Your task to perform on an android device: Open settings Image 0: 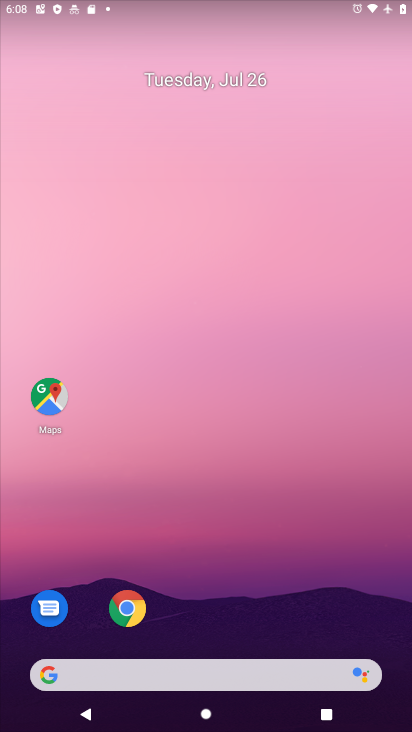
Step 0: drag from (248, 613) to (242, 74)
Your task to perform on an android device: Open settings Image 1: 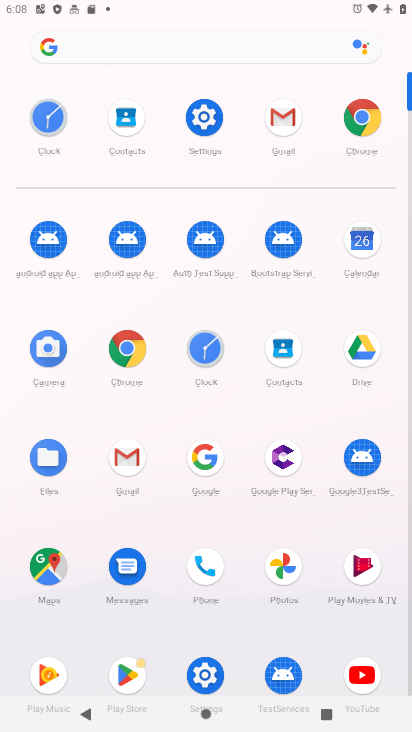
Step 1: click (202, 115)
Your task to perform on an android device: Open settings Image 2: 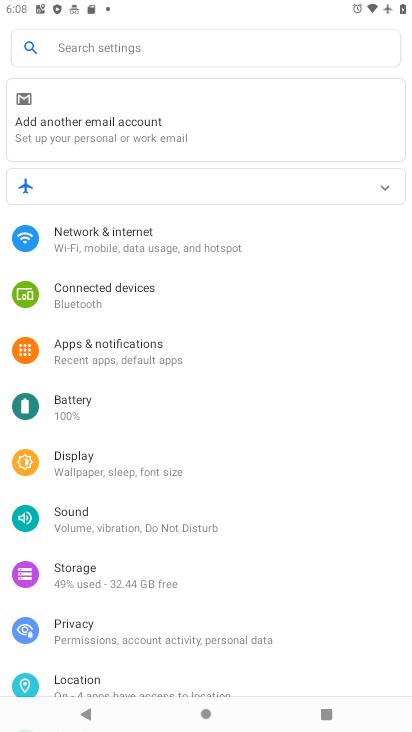
Step 2: task complete